Your task to perform on an android device: Go to internet settings Image 0: 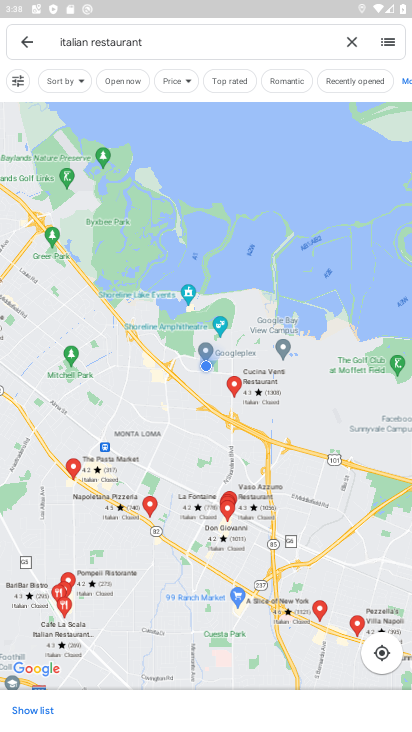
Step 0: press home button
Your task to perform on an android device: Go to internet settings Image 1: 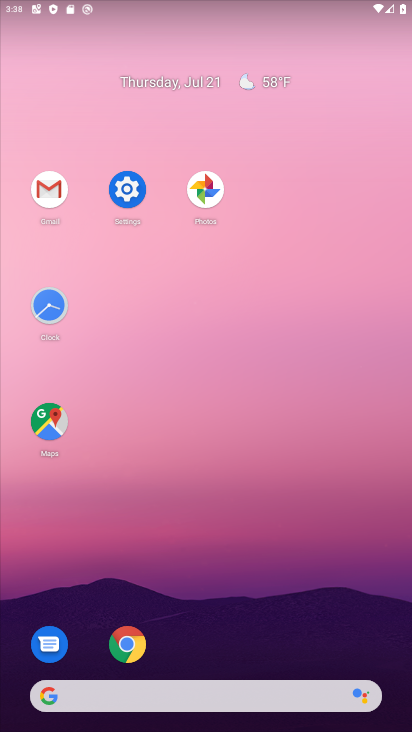
Step 1: click (116, 193)
Your task to perform on an android device: Go to internet settings Image 2: 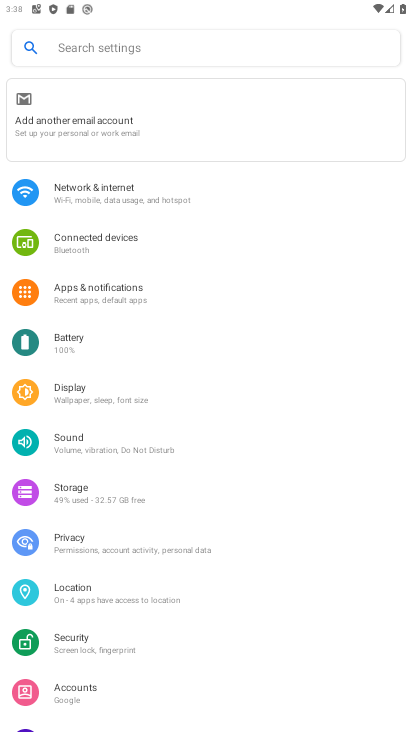
Step 2: click (157, 195)
Your task to perform on an android device: Go to internet settings Image 3: 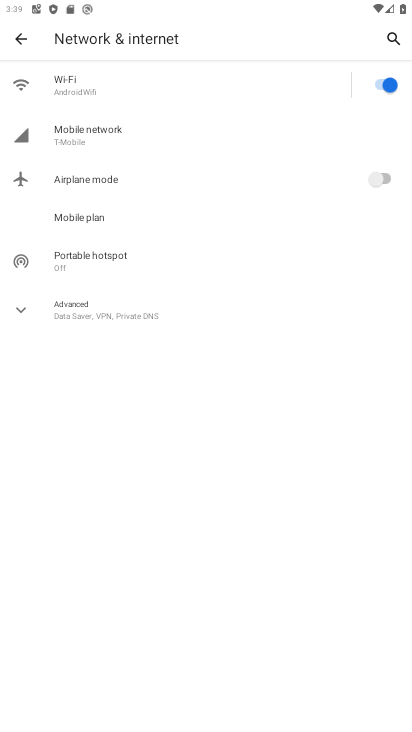
Step 3: click (128, 137)
Your task to perform on an android device: Go to internet settings Image 4: 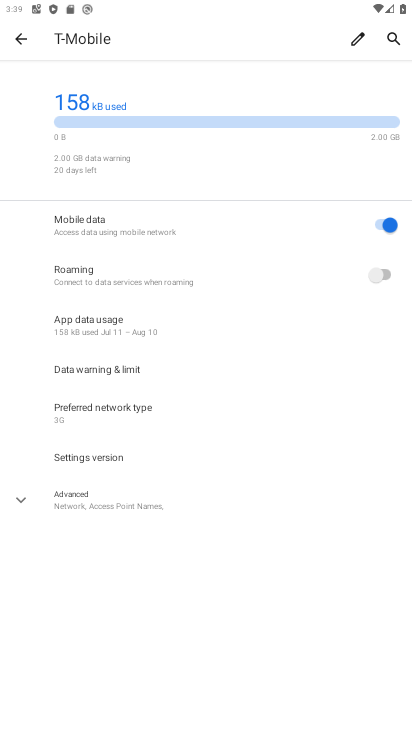
Step 4: task complete